Your task to perform on an android device: Open the calendar and show me this week's events? Image 0: 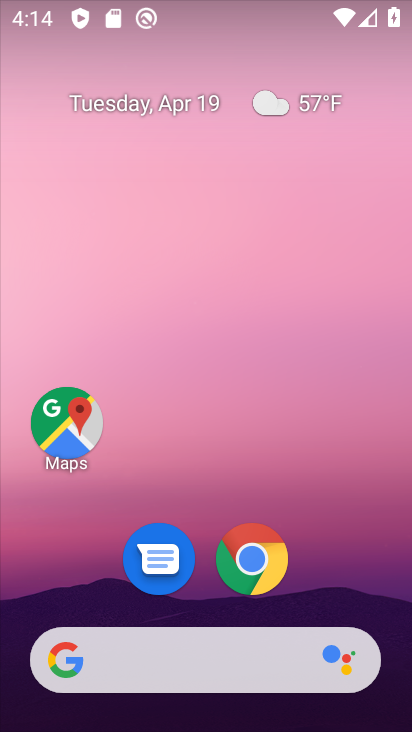
Step 0: drag from (339, 478) to (342, 181)
Your task to perform on an android device: Open the calendar and show me this week's events? Image 1: 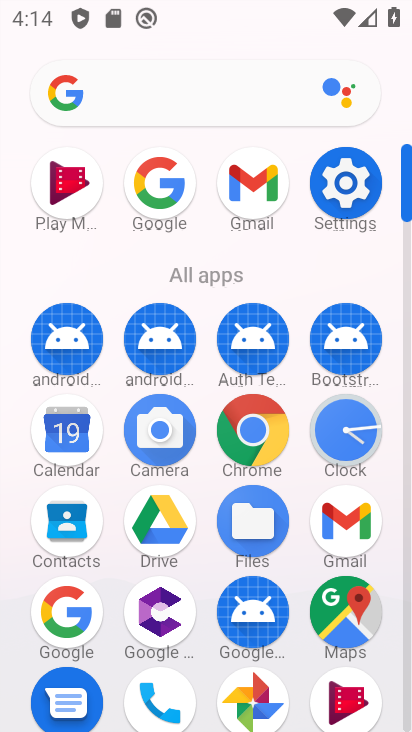
Step 1: click (65, 436)
Your task to perform on an android device: Open the calendar and show me this week's events? Image 2: 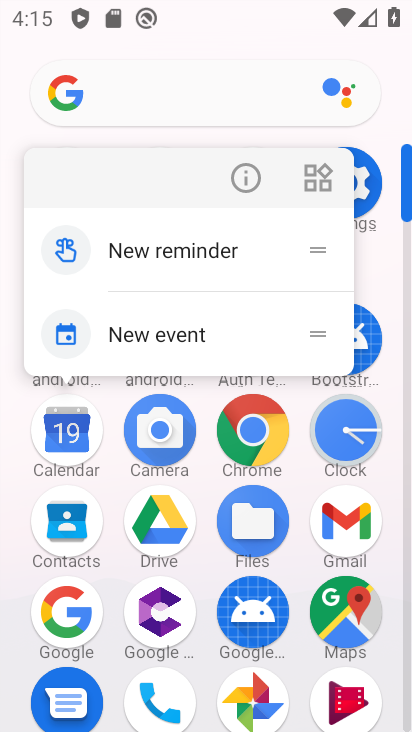
Step 2: click (66, 436)
Your task to perform on an android device: Open the calendar and show me this week's events? Image 3: 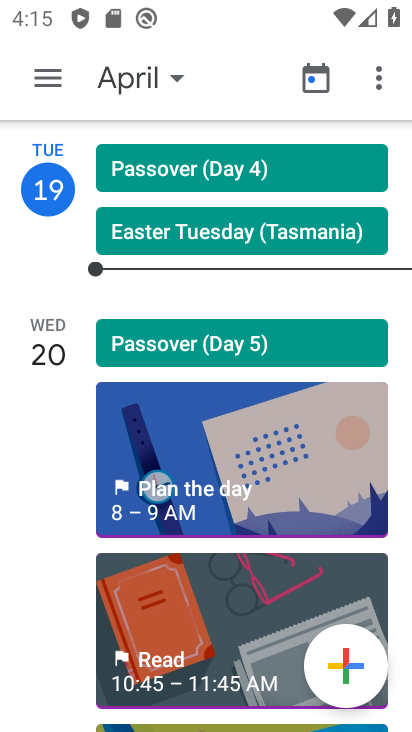
Step 3: click (170, 80)
Your task to perform on an android device: Open the calendar and show me this week's events? Image 4: 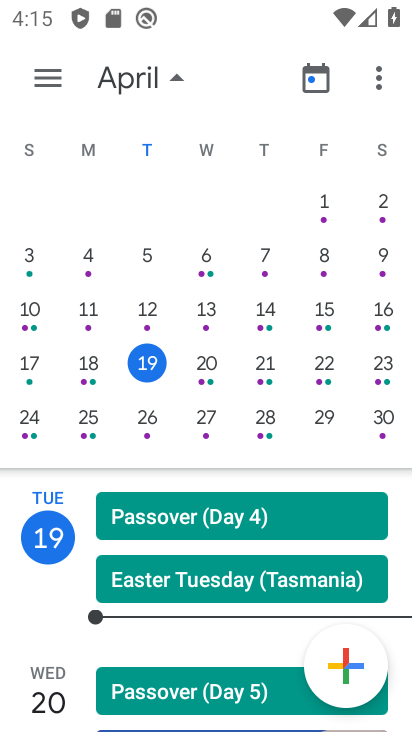
Step 4: click (210, 361)
Your task to perform on an android device: Open the calendar and show me this week's events? Image 5: 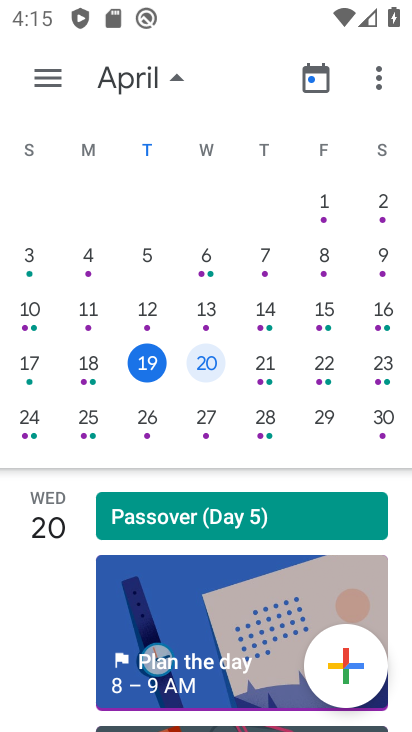
Step 5: task complete